Your task to perform on an android device: turn pop-ups on in chrome Image 0: 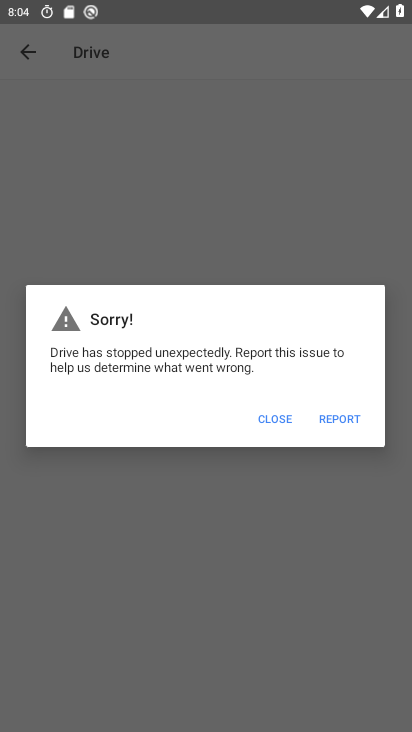
Step 0: press home button
Your task to perform on an android device: turn pop-ups on in chrome Image 1: 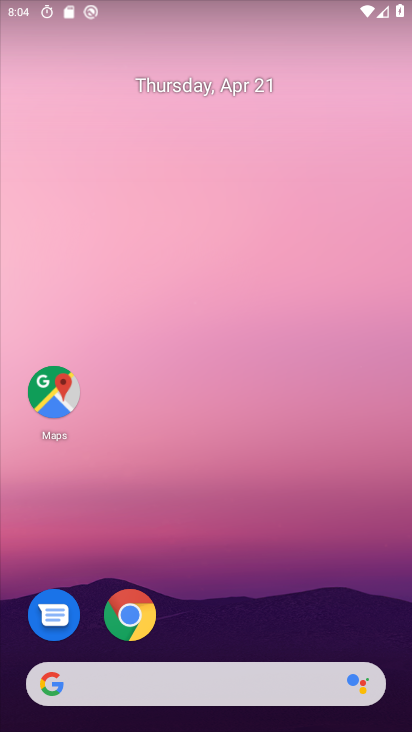
Step 1: drag from (205, 685) to (239, 251)
Your task to perform on an android device: turn pop-ups on in chrome Image 2: 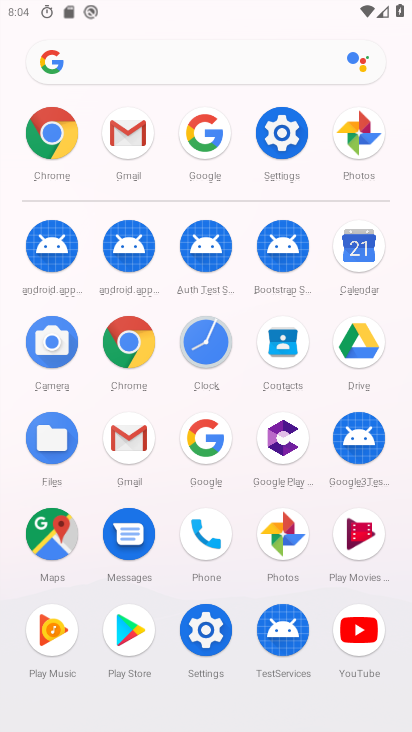
Step 2: click (63, 145)
Your task to perform on an android device: turn pop-ups on in chrome Image 3: 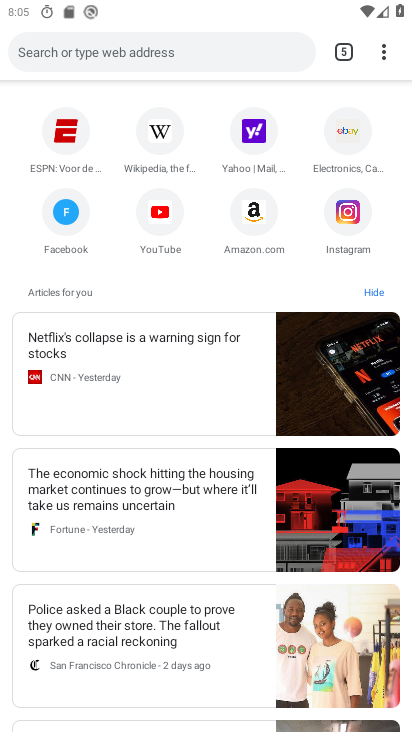
Step 3: click (375, 64)
Your task to perform on an android device: turn pop-ups on in chrome Image 4: 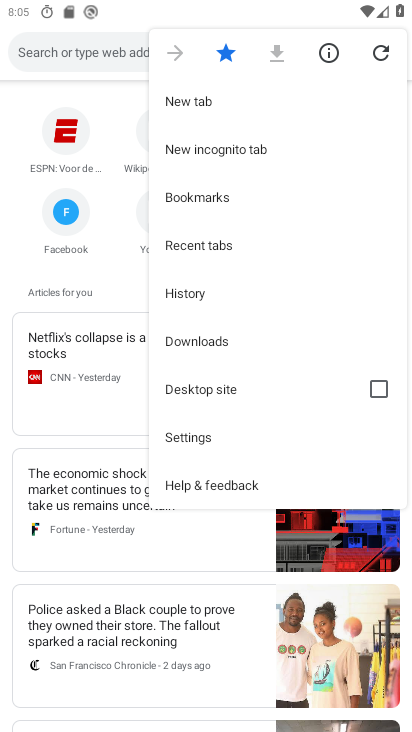
Step 4: click (183, 438)
Your task to perform on an android device: turn pop-ups on in chrome Image 5: 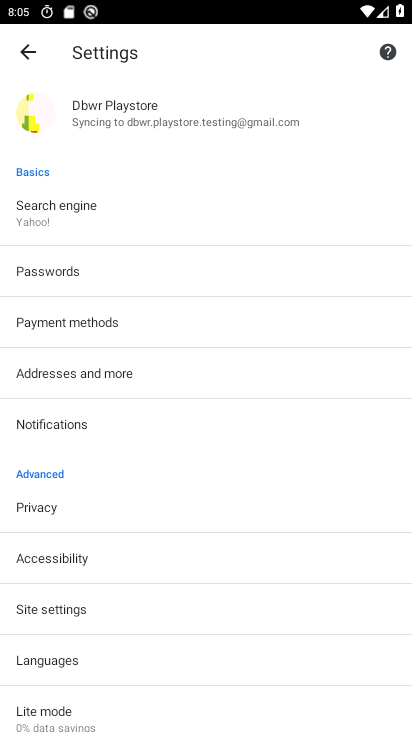
Step 5: click (61, 608)
Your task to perform on an android device: turn pop-ups on in chrome Image 6: 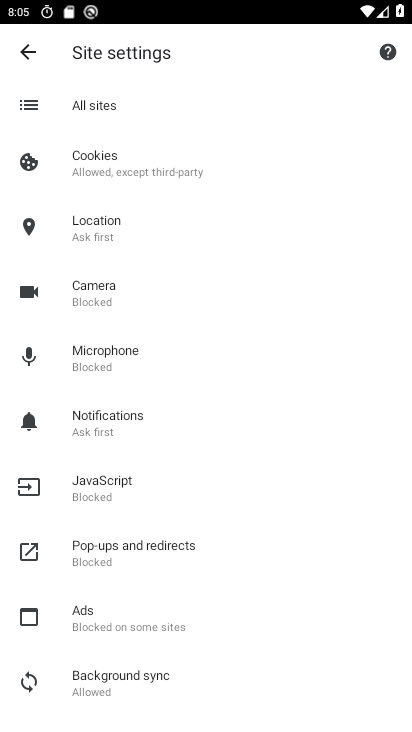
Step 6: click (135, 549)
Your task to perform on an android device: turn pop-ups on in chrome Image 7: 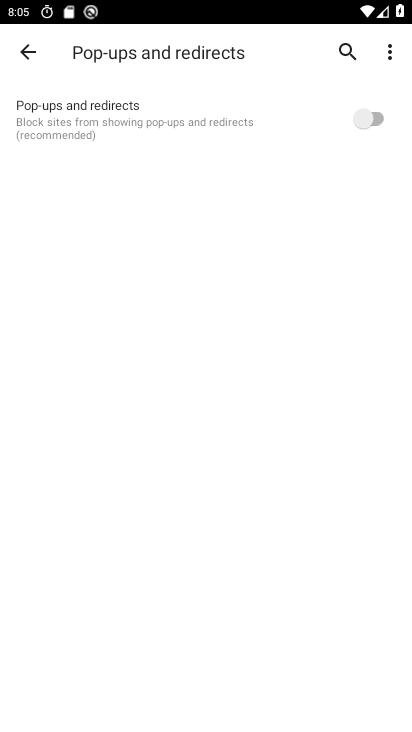
Step 7: click (376, 119)
Your task to perform on an android device: turn pop-ups on in chrome Image 8: 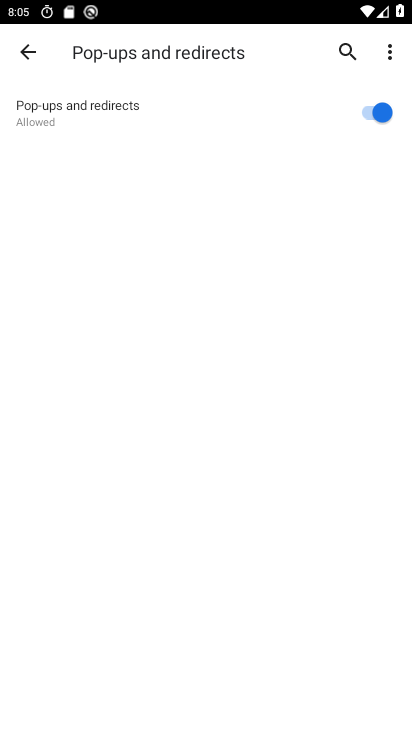
Step 8: task complete